Your task to perform on an android device: check out phone information Image 0: 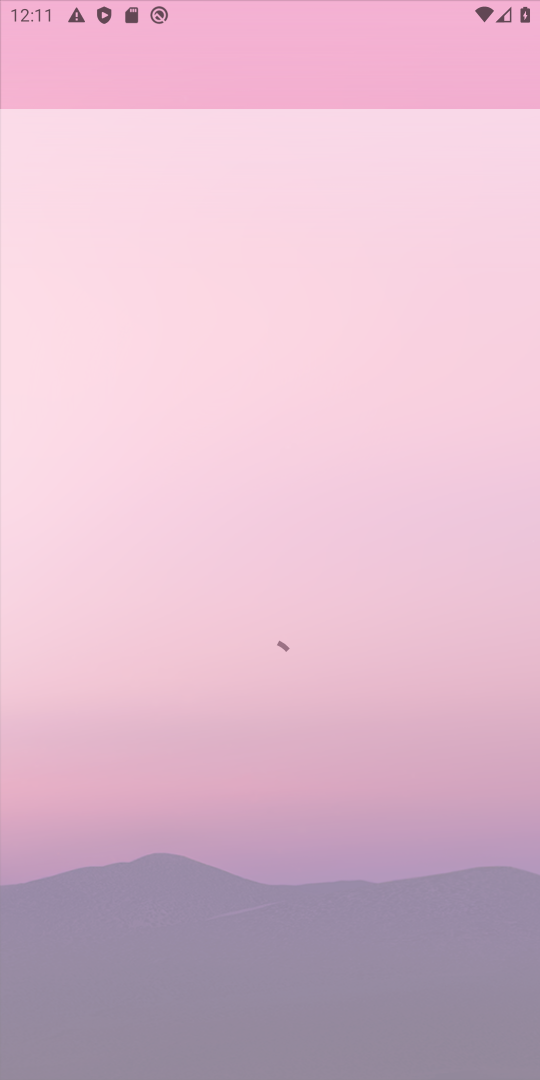
Step 0: drag from (476, 381) to (471, 225)
Your task to perform on an android device: check out phone information Image 1: 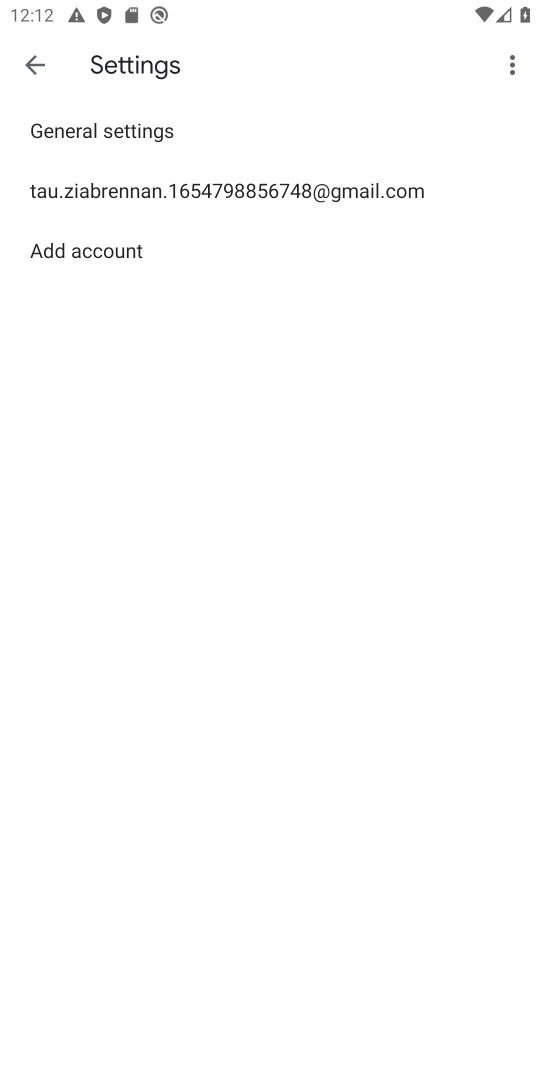
Step 1: press home button
Your task to perform on an android device: check out phone information Image 2: 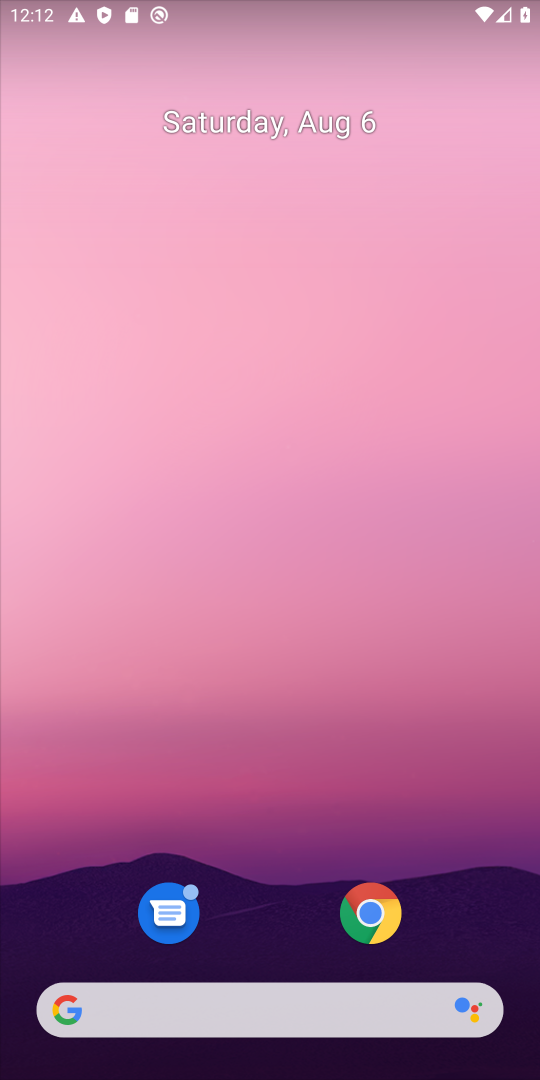
Step 2: drag from (480, 913) to (494, 332)
Your task to perform on an android device: check out phone information Image 3: 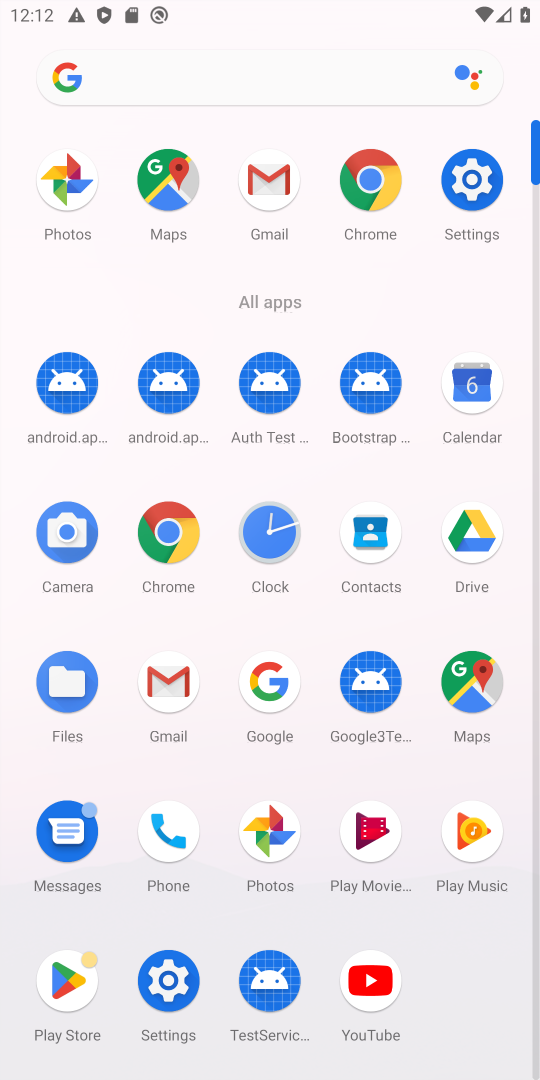
Step 3: click (179, 834)
Your task to perform on an android device: check out phone information Image 4: 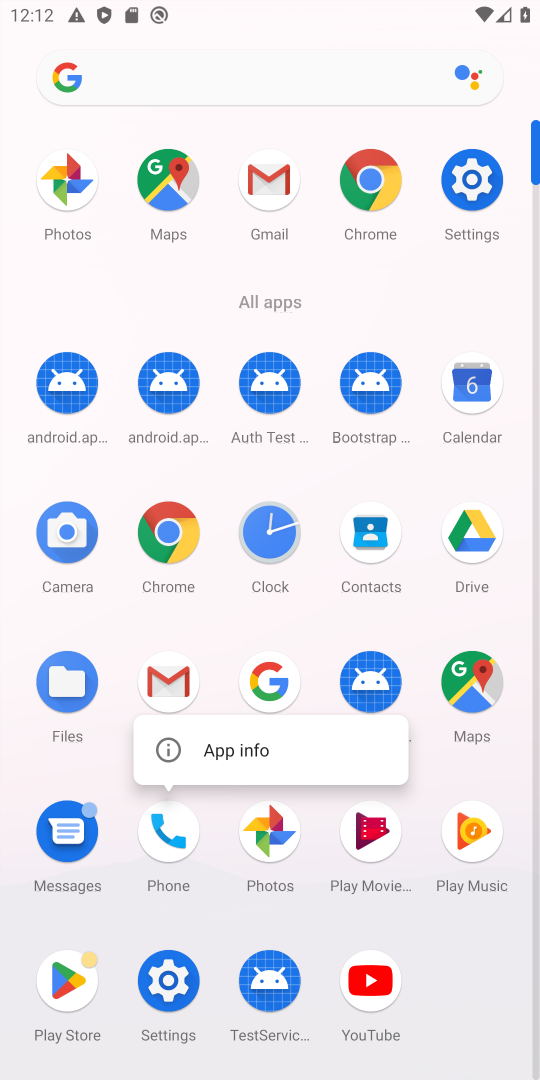
Step 4: click (180, 836)
Your task to perform on an android device: check out phone information Image 5: 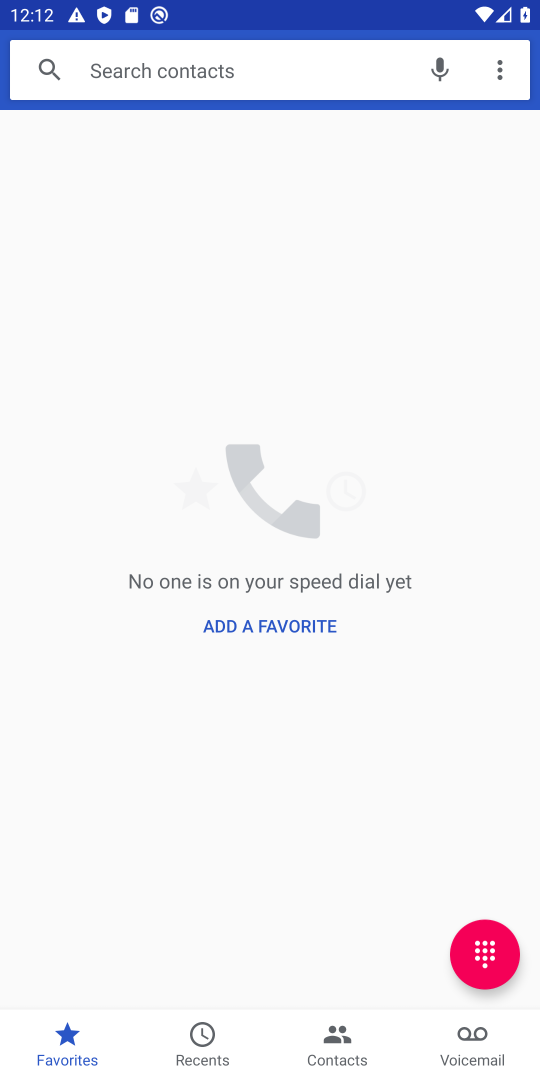
Step 5: task complete